Your task to perform on an android device: turn pop-ups off in chrome Image 0: 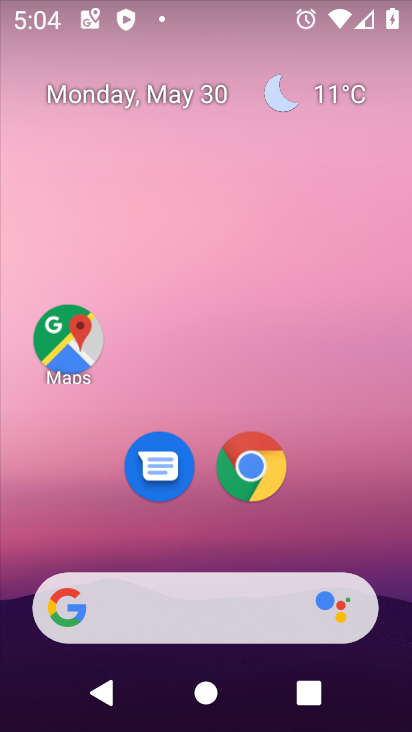
Step 0: click (246, 464)
Your task to perform on an android device: turn pop-ups off in chrome Image 1: 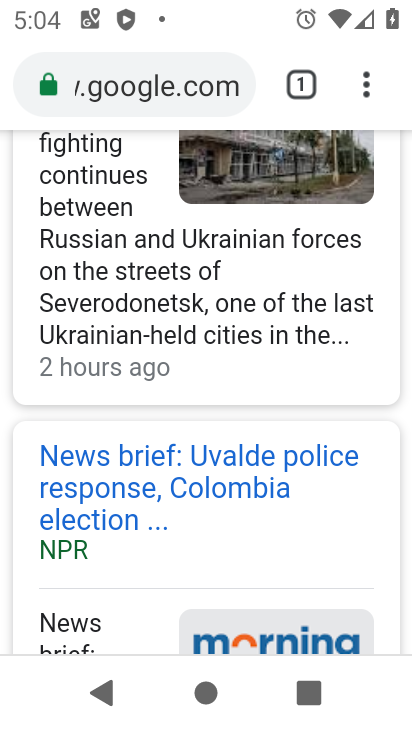
Step 1: click (368, 77)
Your task to perform on an android device: turn pop-ups off in chrome Image 2: 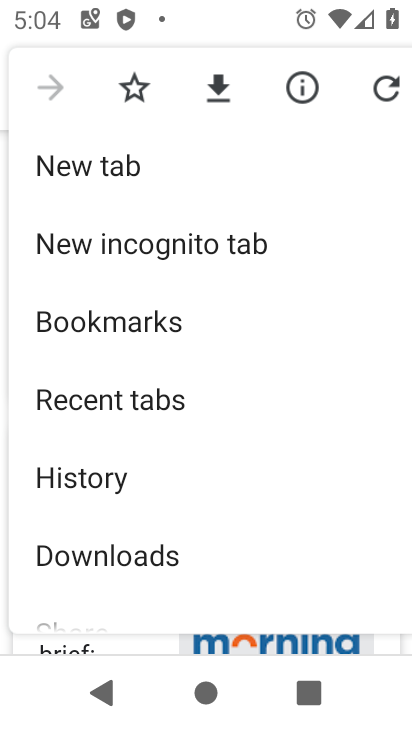
Step 2: drag from (171, 517) to (239, 140)
Your task to perform on an android device: turn pop-ups off in chrome Image 3: 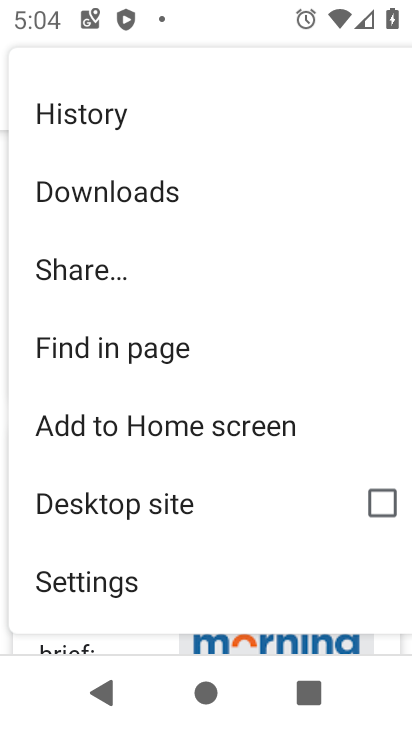
Step 3: click (115, 581)
Your task to perform on an android device: turn pop-ups off in chrome Image 4: 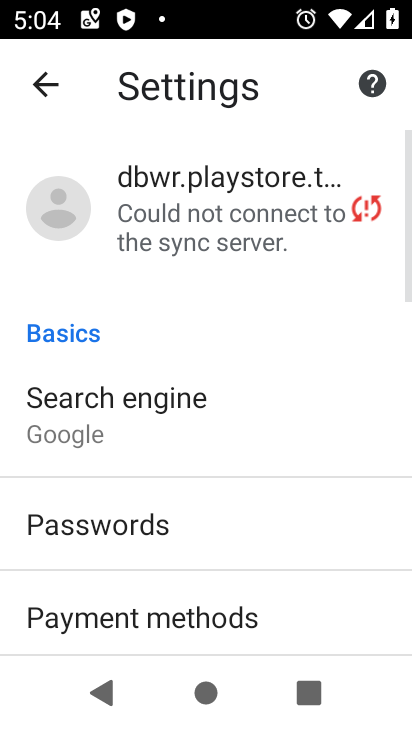
Step 4: drag from (257, 594) to (264, 154)
Your task to perform on an android device: turn pop-ups off in chrome Image 5: 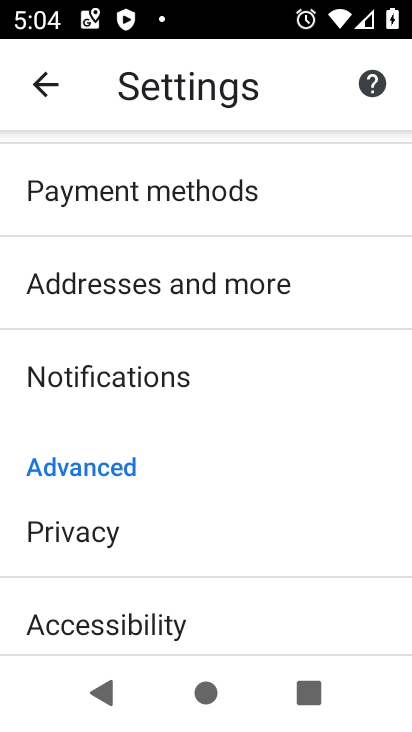
Step 5: drag from (276, 573) to (299, 229)
Your task to perform on an android device: turn pop-ups off in chrome Image 6: 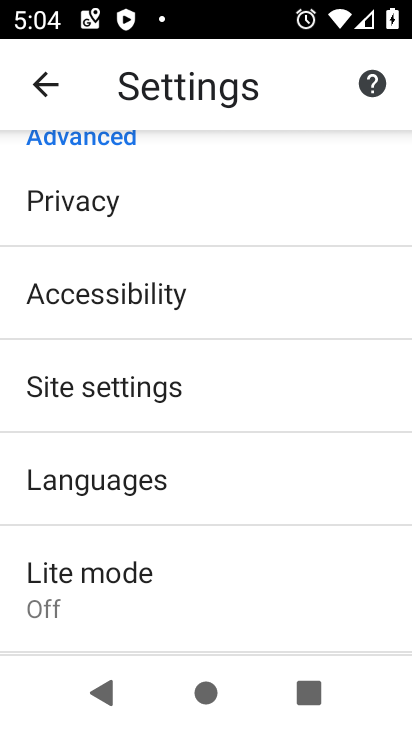
Step 6: click (128, 395)
Your task to perform on an android device: turn pop-ups off in chrome Image 7: 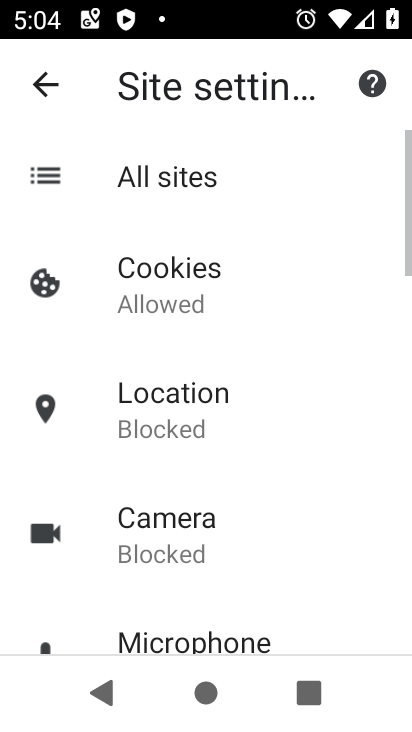
Step 7: drag from (275, 558) to (278, 170)
Your task to perform on an android device: turn pop-ups off in chrome Image 8: 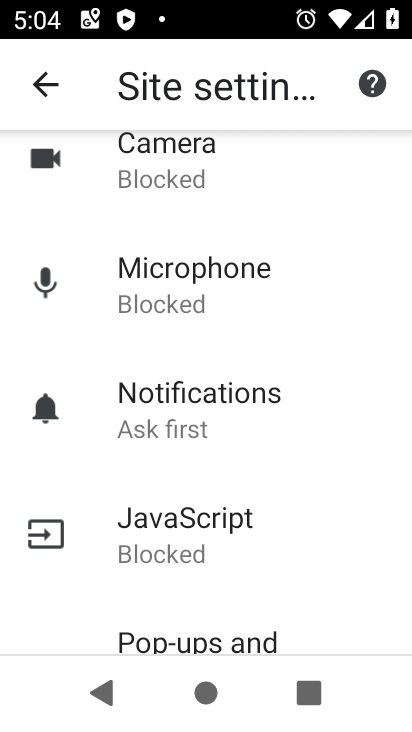
Step 8: drag from (229, 564) to (297, 211)
Your task to perform on an android device: turn pop-ups off in chrome Image 9: 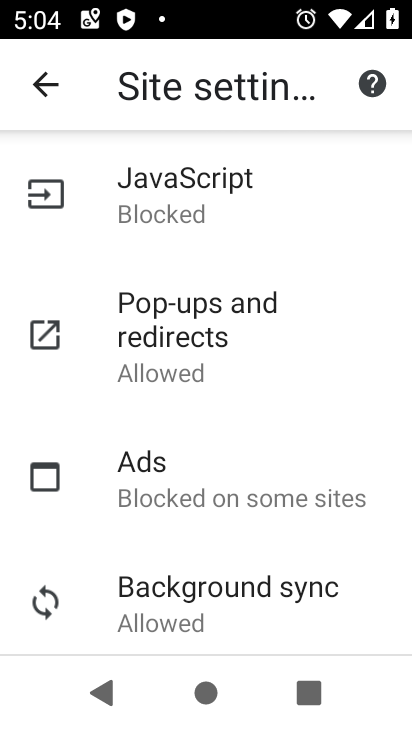
Step 9: click (195, 314)
Your task to perform on an android device: turn pop-ups off in chrome Image 10: 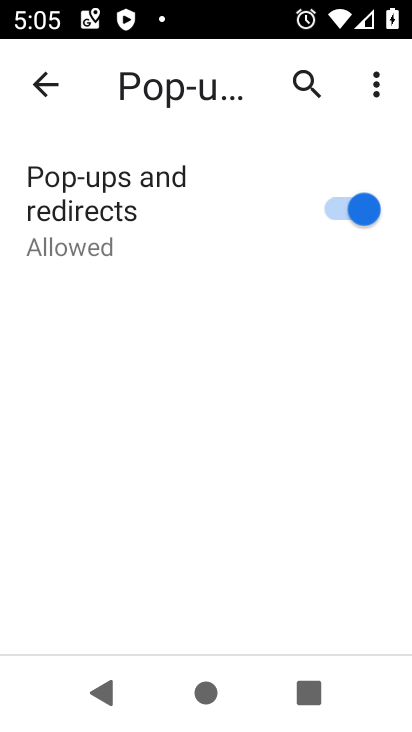
Step 10: click (358, 183)
Your task to perform on an android device: turn pop-ups off in chrome Image 11: 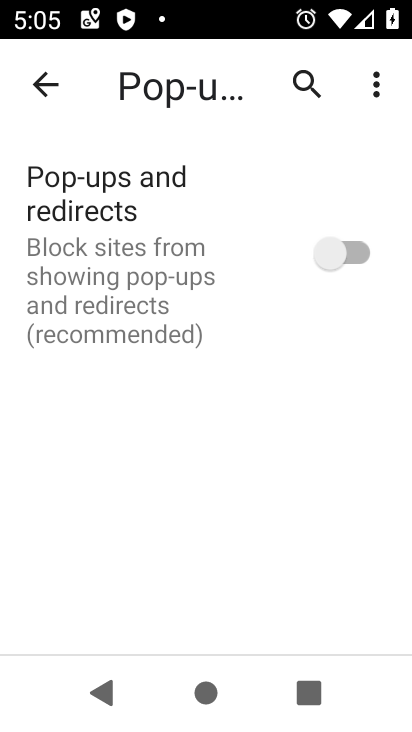
Step 11: task complete